Your task to perform on an android device: install app "Google Home" Image 0: 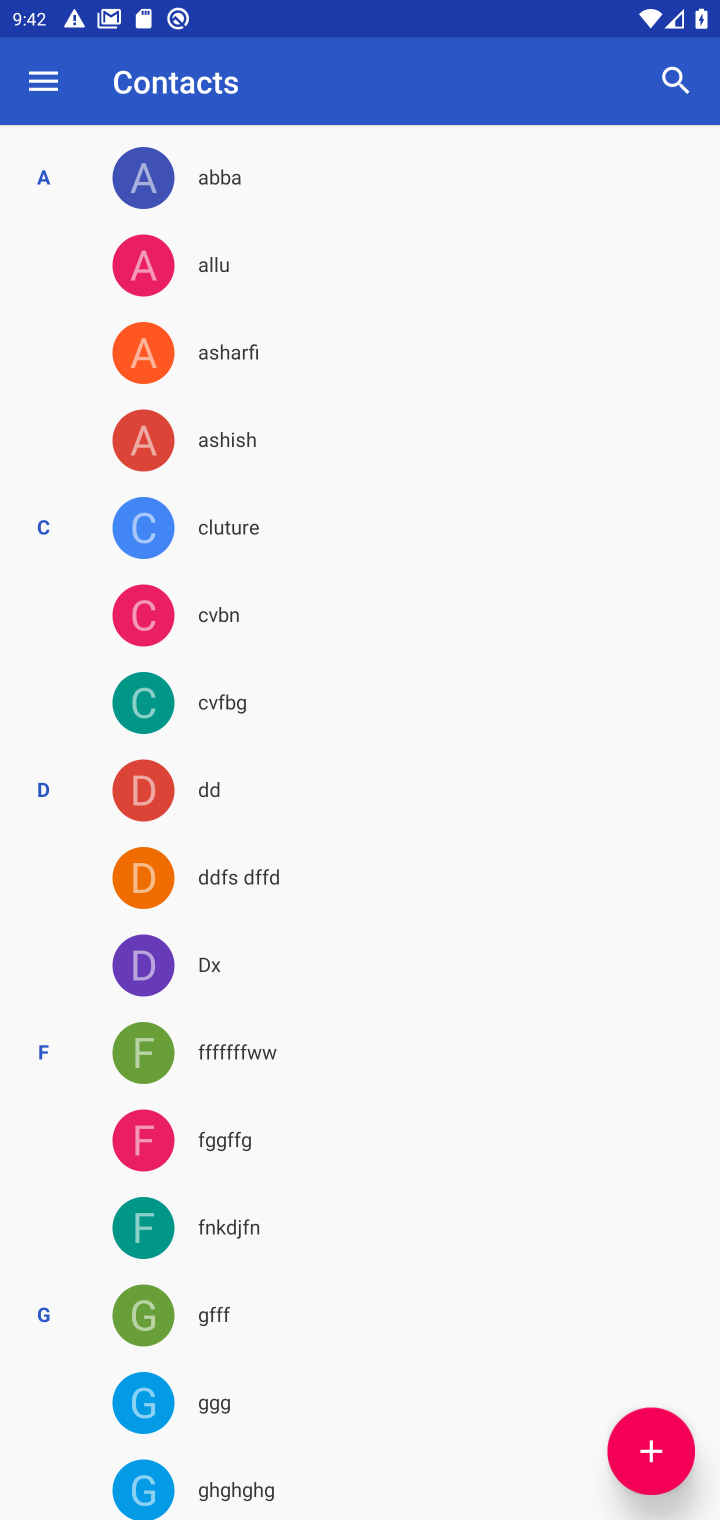
Step 0: press home button
Your task to perform on an android device: install app "Google Home" Image 1: 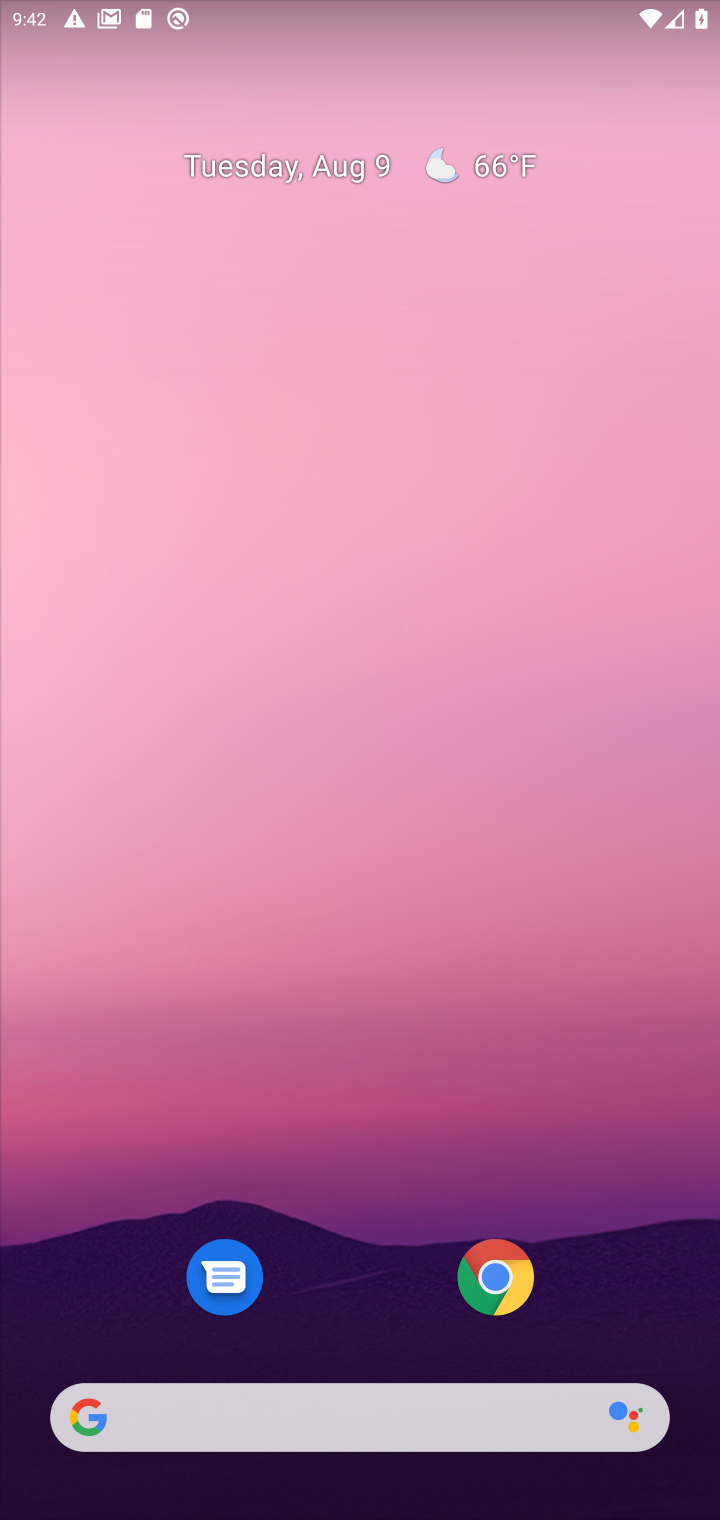
Step 1: drag from (376, 1326) to (58, 97)
Your task to perform on an android device: install app "Google Home" Image 2: 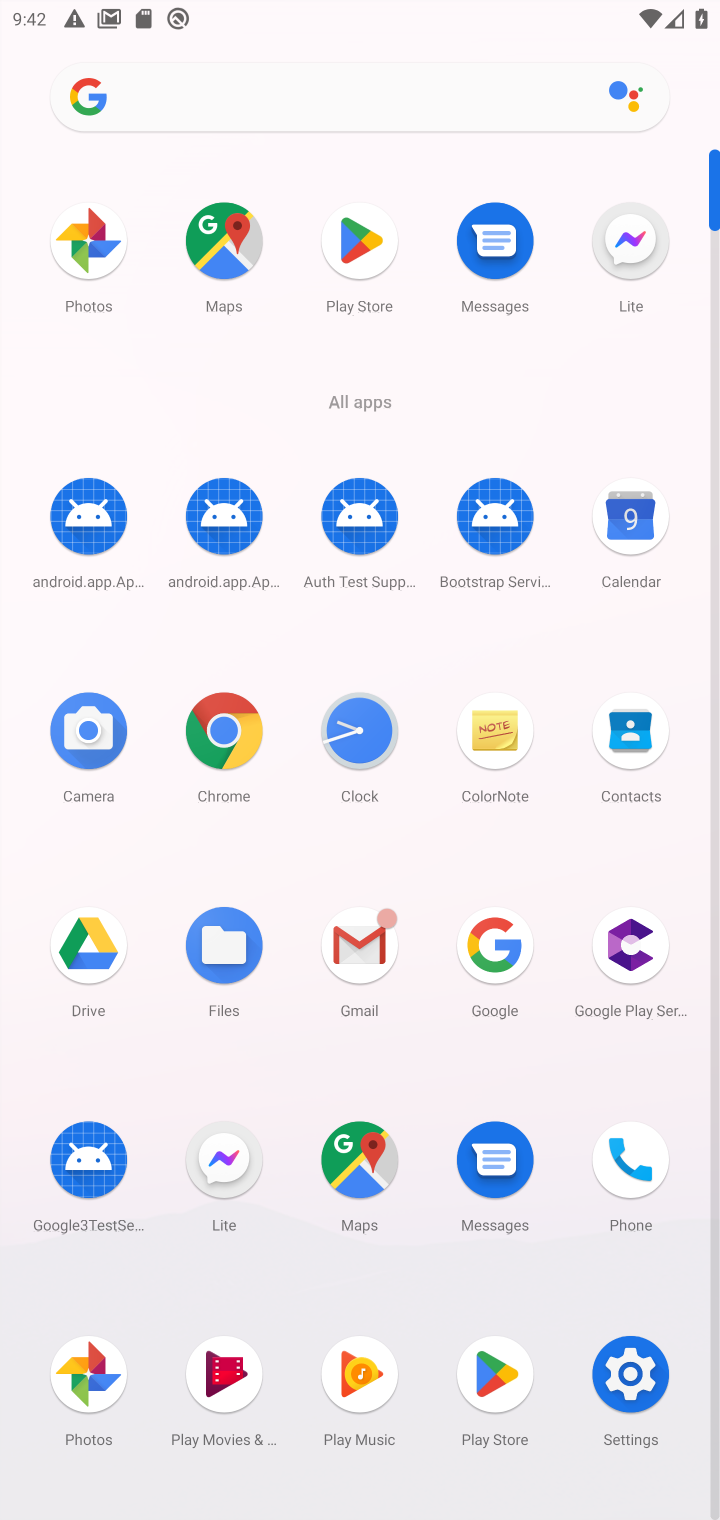
Step 2: click (496, 1390)
Your task to perform on an android device: install app "Google Home" Image 3: 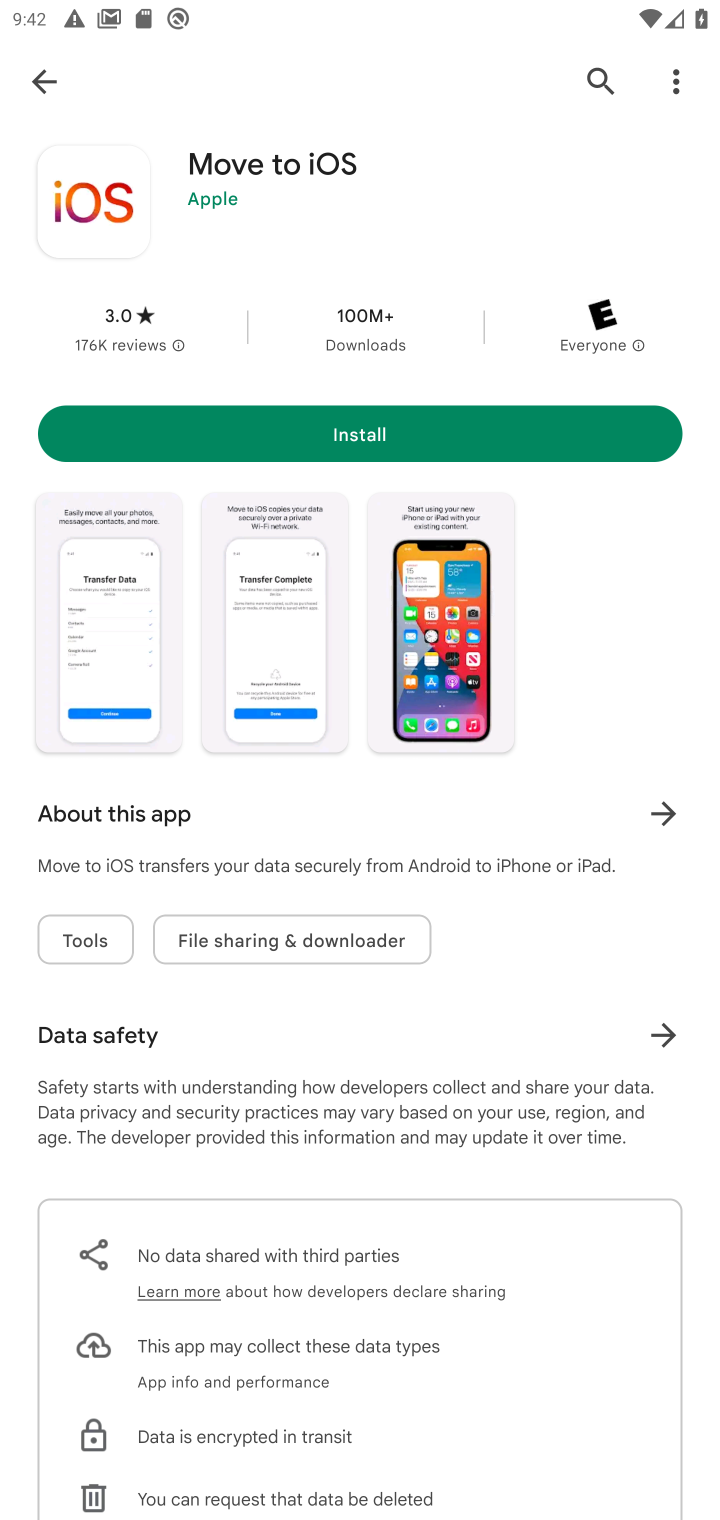
Step 3: click (25, 72)
Your task to perform on an android device: install app "Google Home" Image 4: 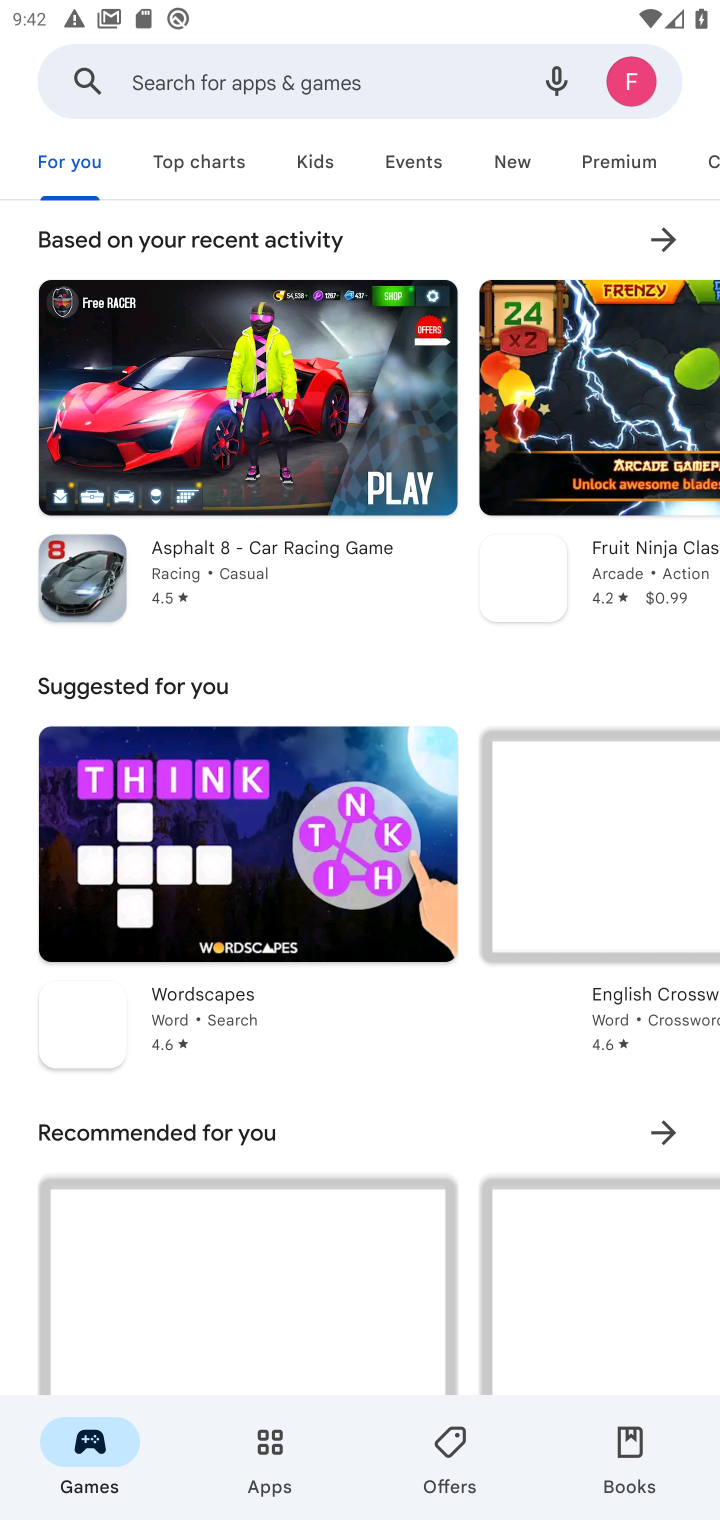
Step 4: click (169, 84)
Your task to perform on an android device: install app "Google Home" Image 5: 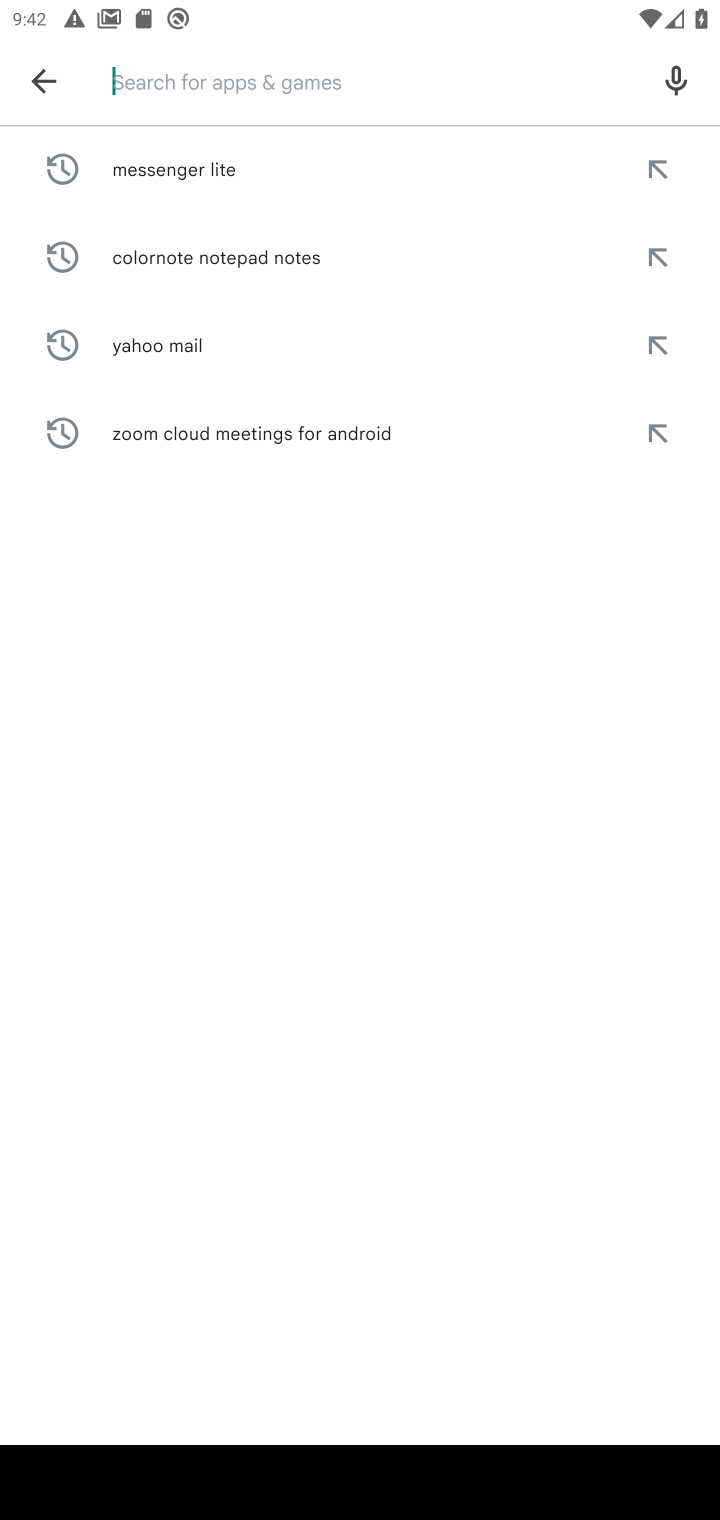
Step 5: type "Google Home"
Your task to perform on an android device: install app "Google Home" Image 6: 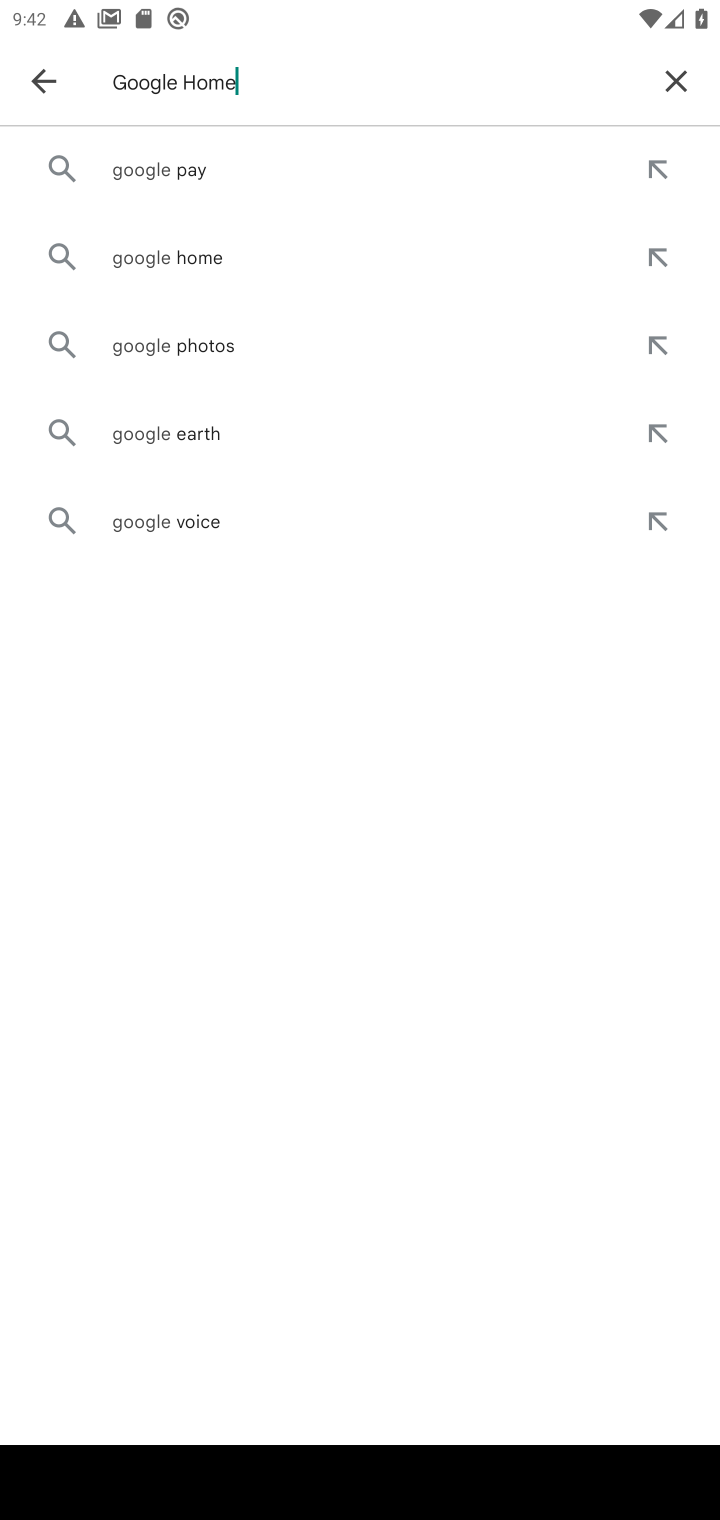
Step 6: type ""
Your task to perform on an android device: install app "Google Home" Image 7: 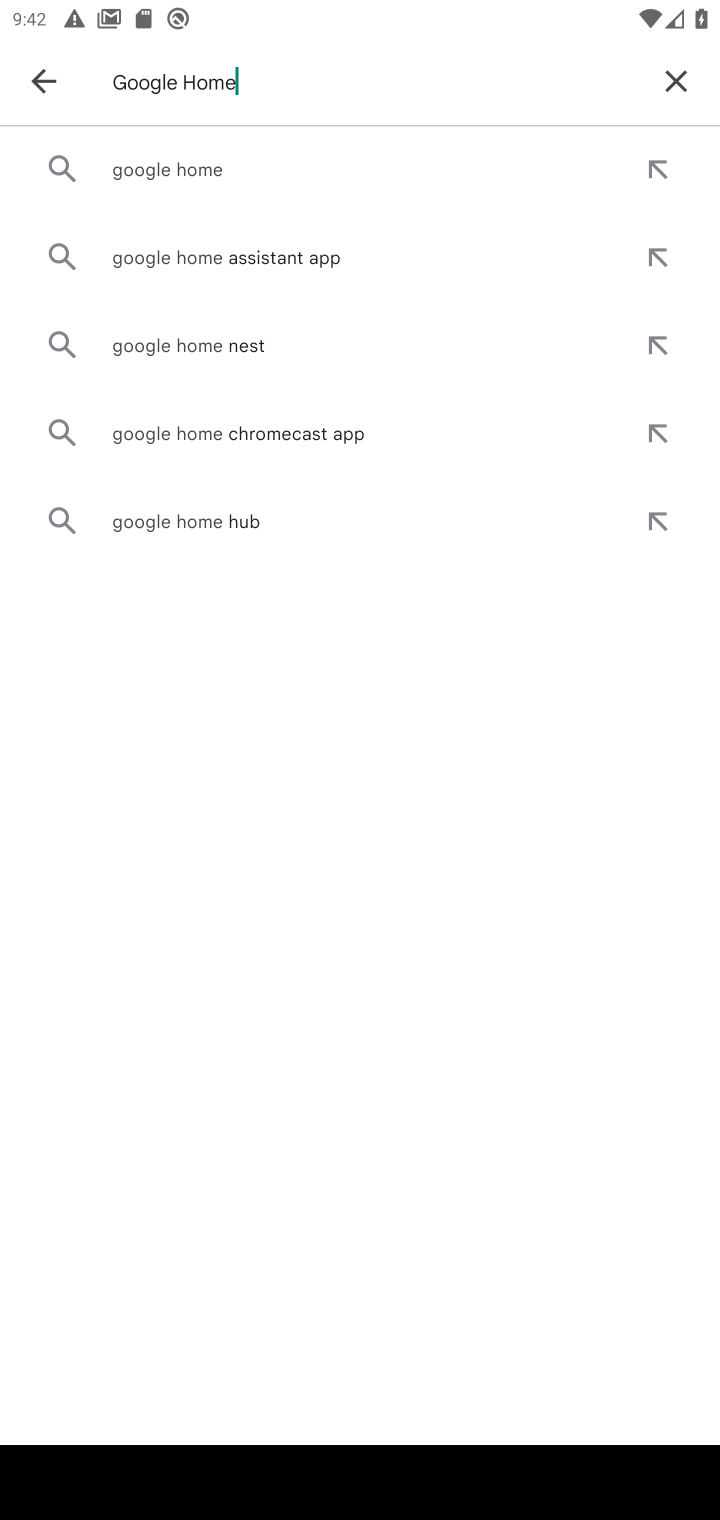
Step 7: click (165, 185)
Your task to perform on an android device: install app "Google Home" Image 8: 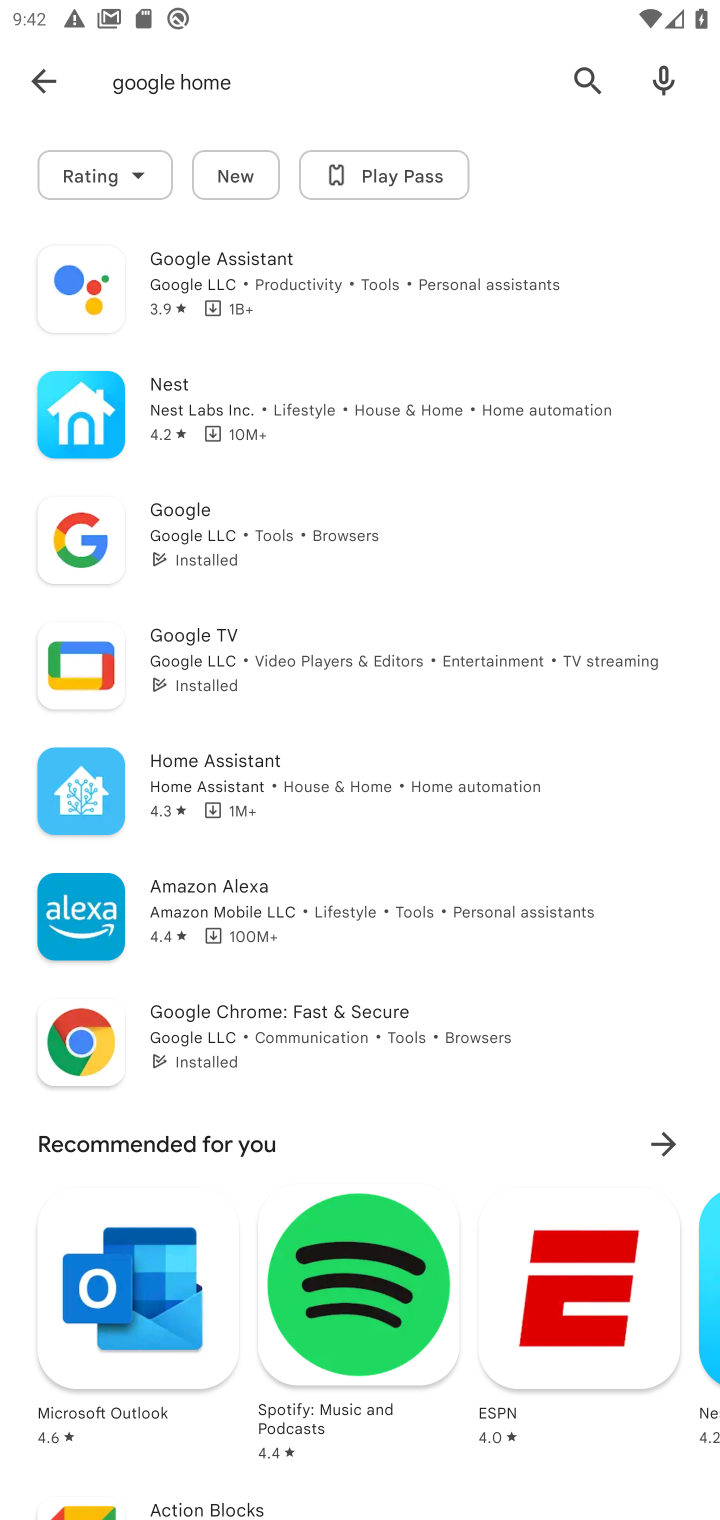
Step 8: task complete